Your task to perform on an android device: set an alarm Image 0: 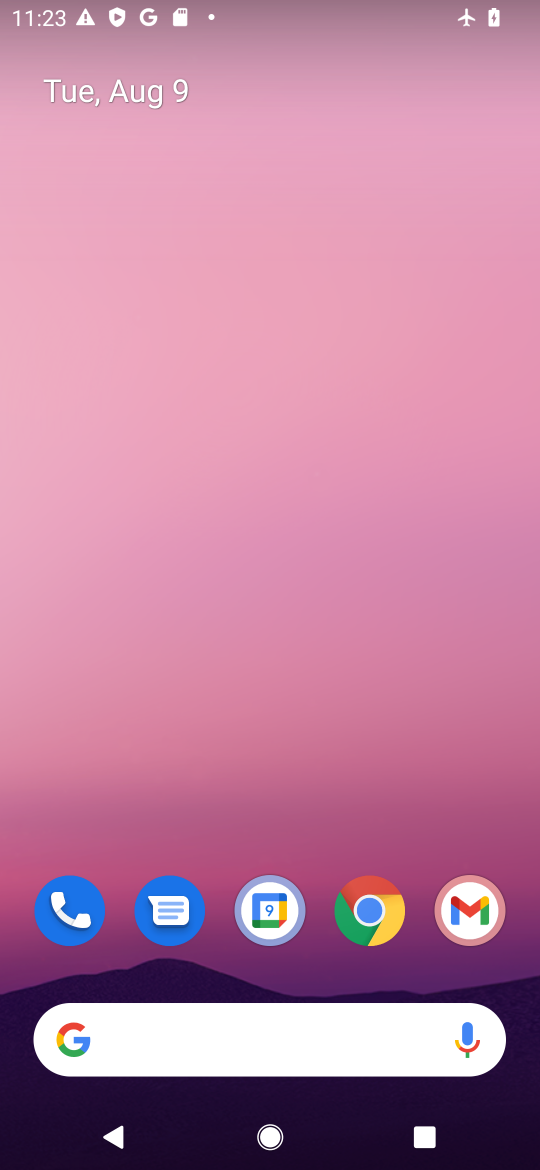
Step 0: drag from (214, 737) to (537, 846)
Your task to perform on an android device: set an alarm Image 1: 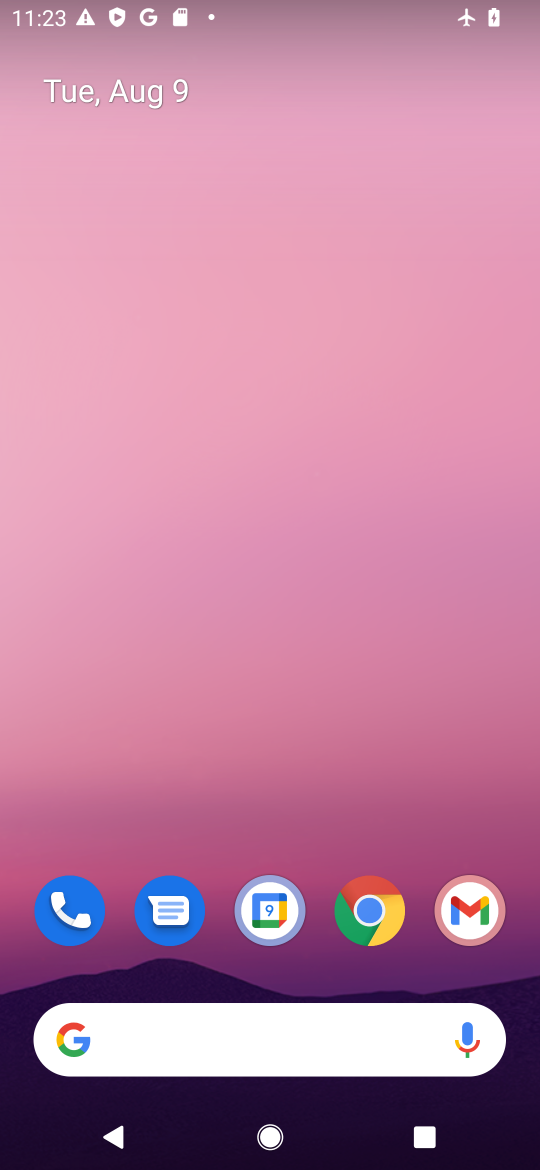
Step 1: drag from (122, 589) to (333, 54)
Your task to perform on an android device: set an alarm Image 2: 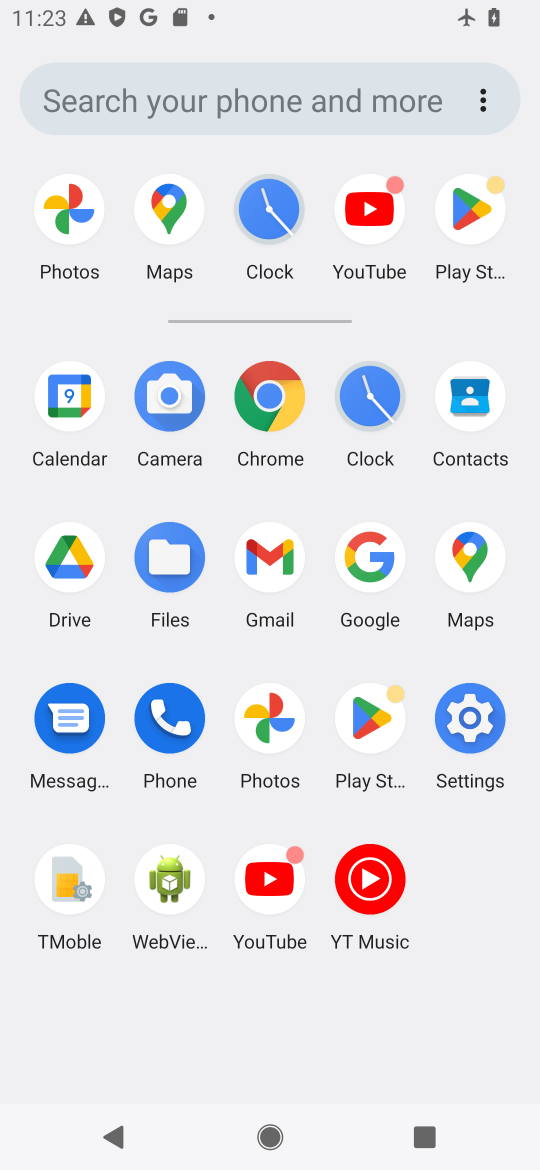
Step 2: click (253, 205)
Your task to perform on an android device: set an alarm Image 3: 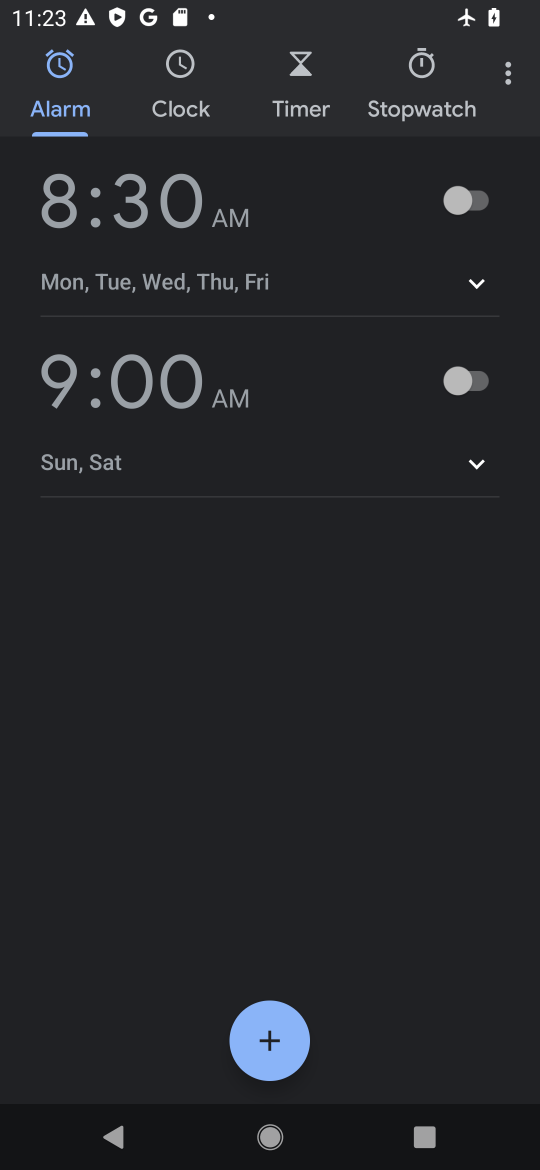
Step 3: click (312, 1033)
Your task to perform on an android device: set an alarm Image 4: 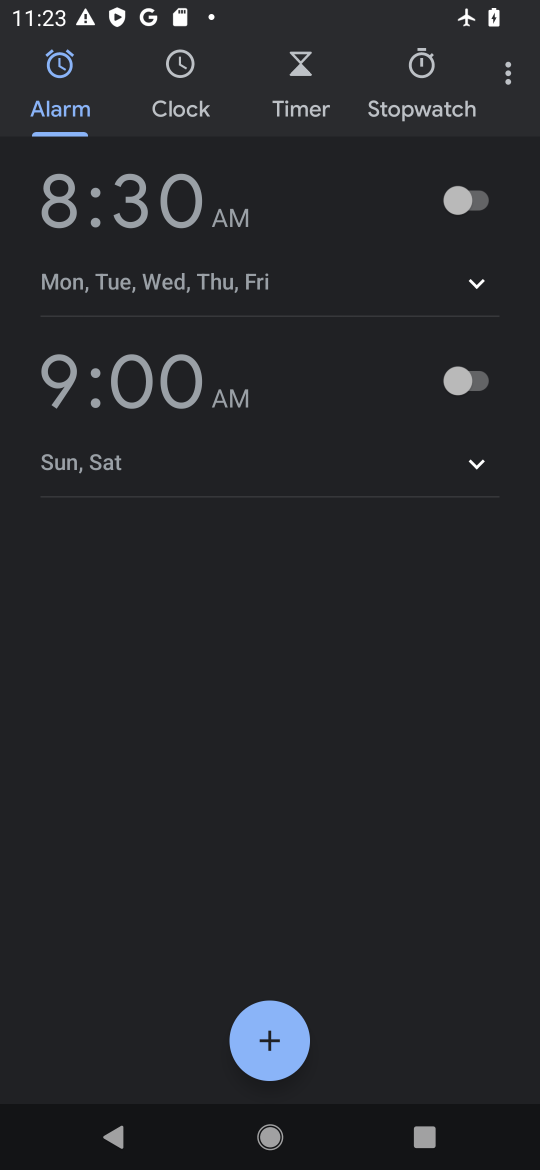
Step 4: click (261, 1041)
Your task to perform on an android device: set an alarm Image 5: 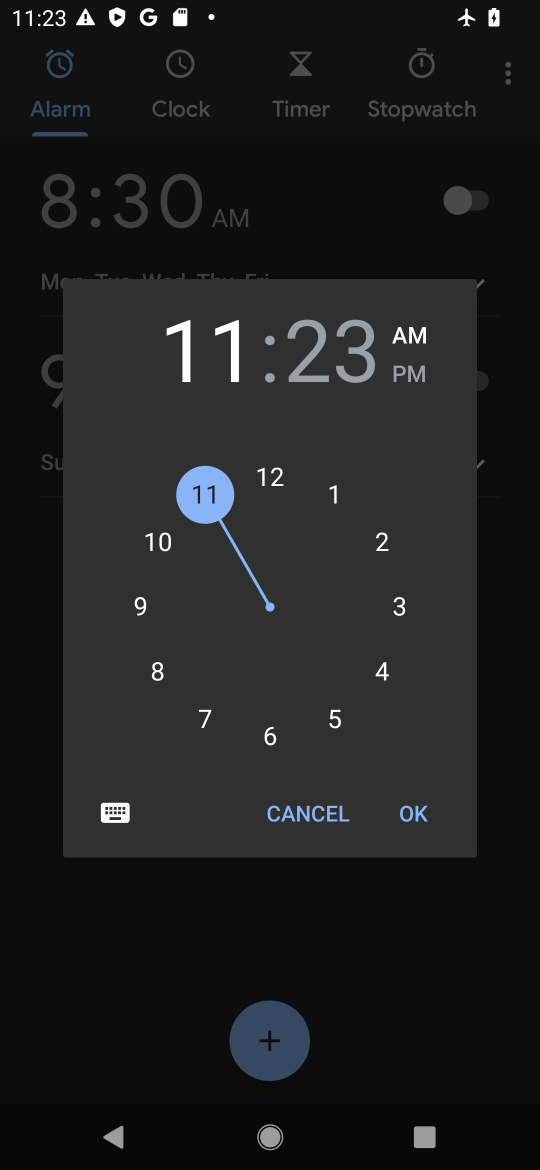
Step 5: click (417, 811)
Your task to perform on an android device: set an alarm Image 6: 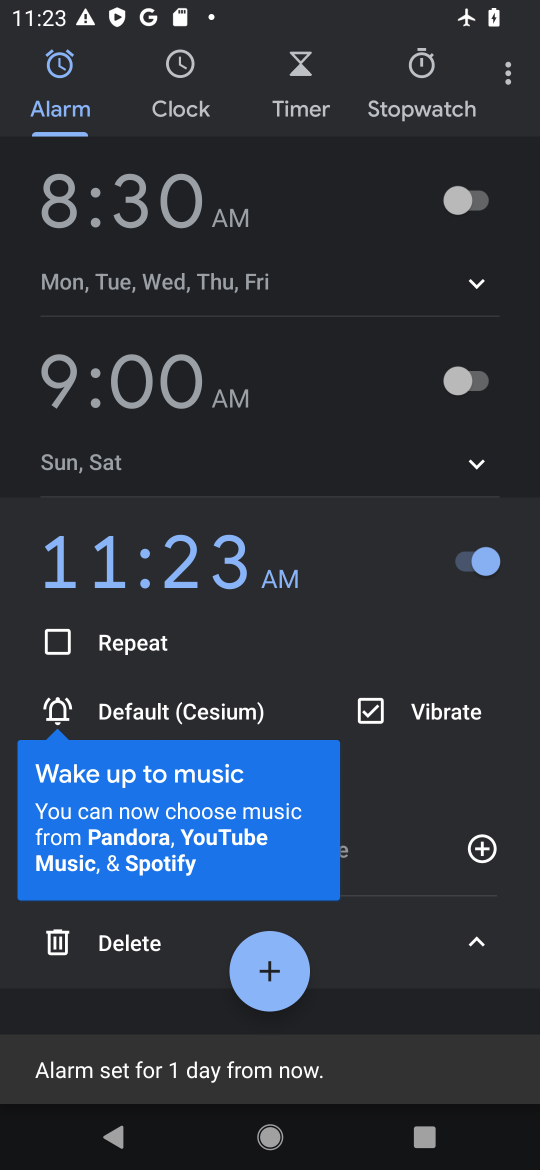
Step 6: task complete